Your task to perform on an android device: What's the weather going to be this weekend? Image 0: 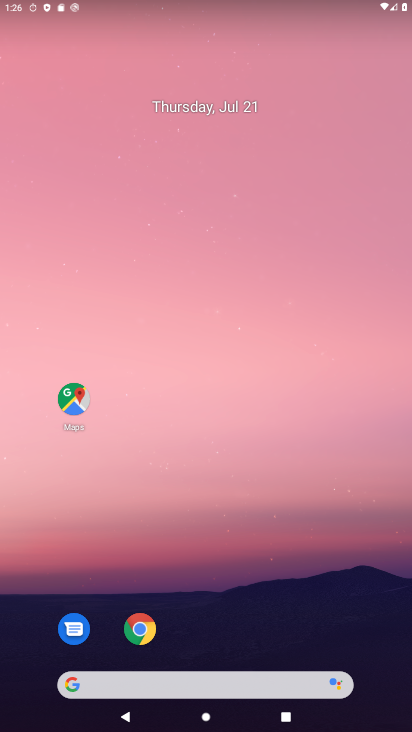
Step 0: click (131, 699)
Your task to perform on an android device: What's the weather going to be this weekend? Image 1: 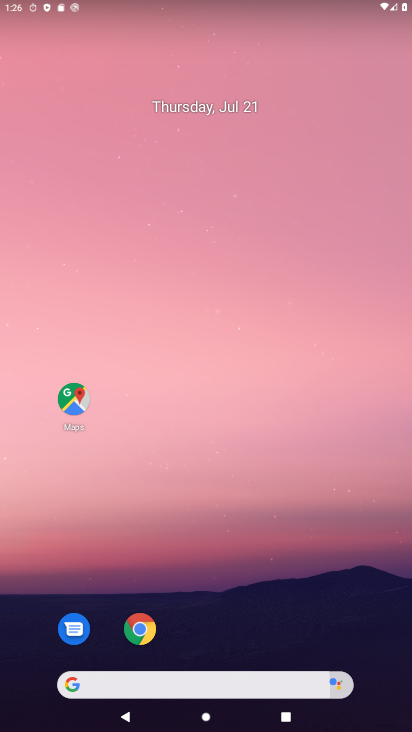
Step 1: click (127, 680)
Your task to perform on an android device: What's the weather going to be this weekend? Image 2: 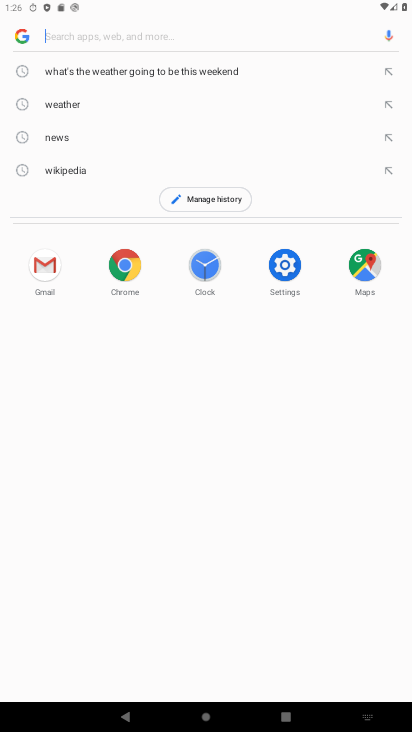
Step 2: click (197, 74)
Your task to perform on an android device: What's the weather going to be this weekend? Image 3: 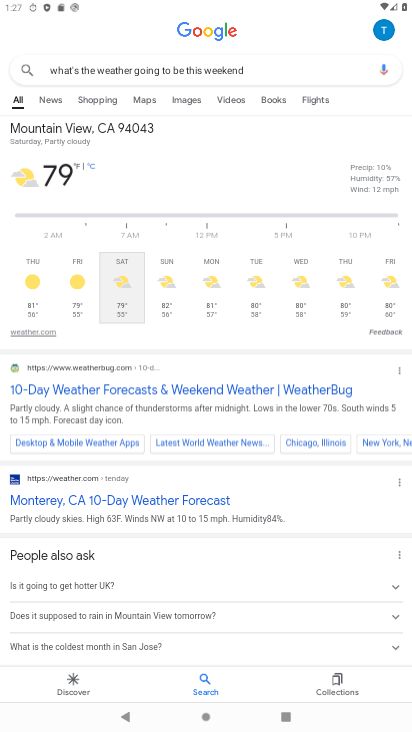
Step 3: task complete